Your task to perform on an android device: Open the web browser Image 0: 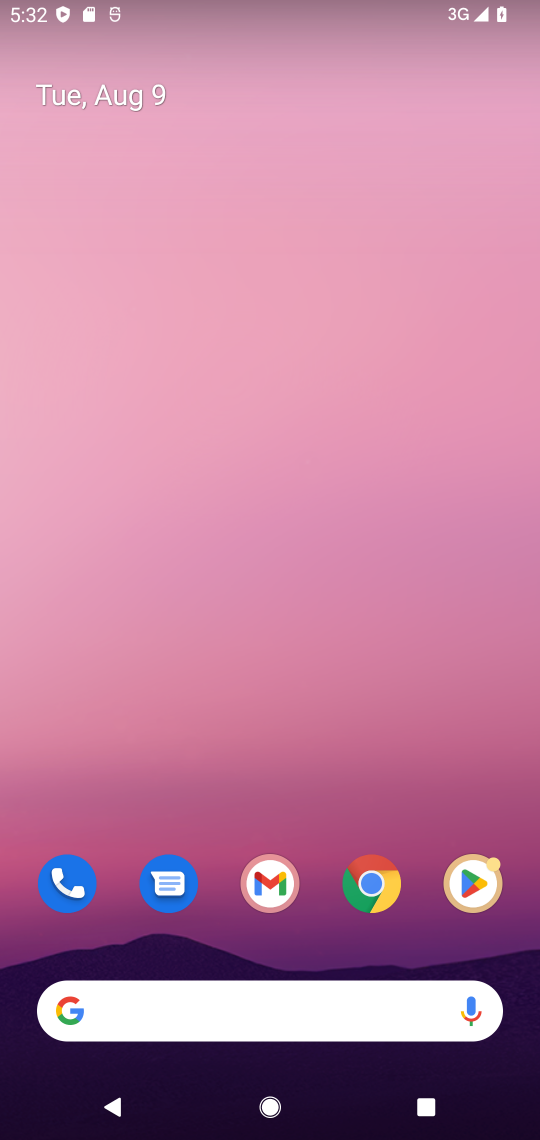
Step 0: click (355, 872)
Your task to perform on an android device: Open the web browser Image 1: 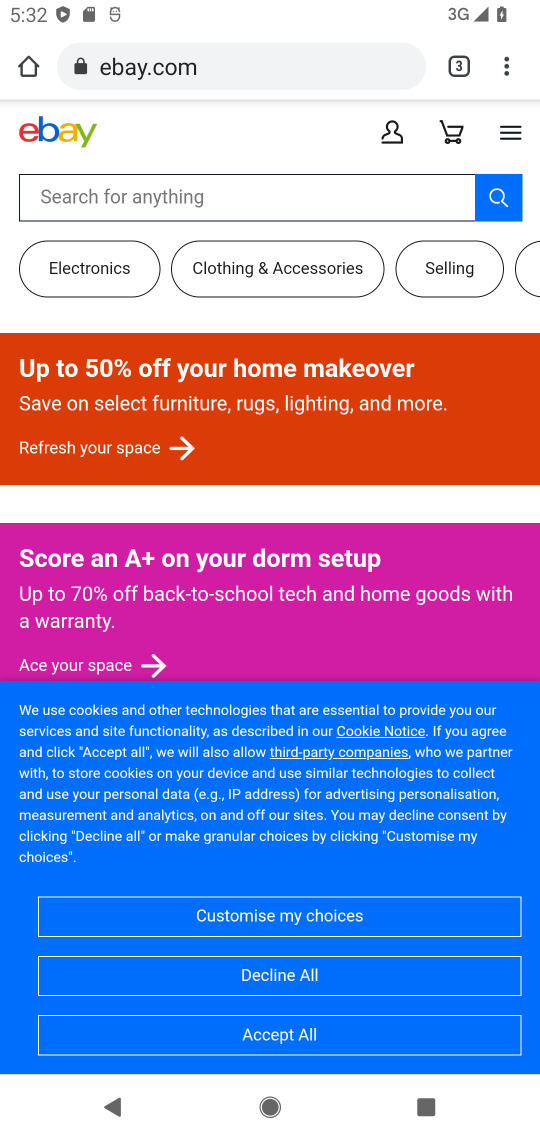
Step 1: task complete